Your task to perform on an android device: Play the new Demi Lovato video on YouTube Image 0: 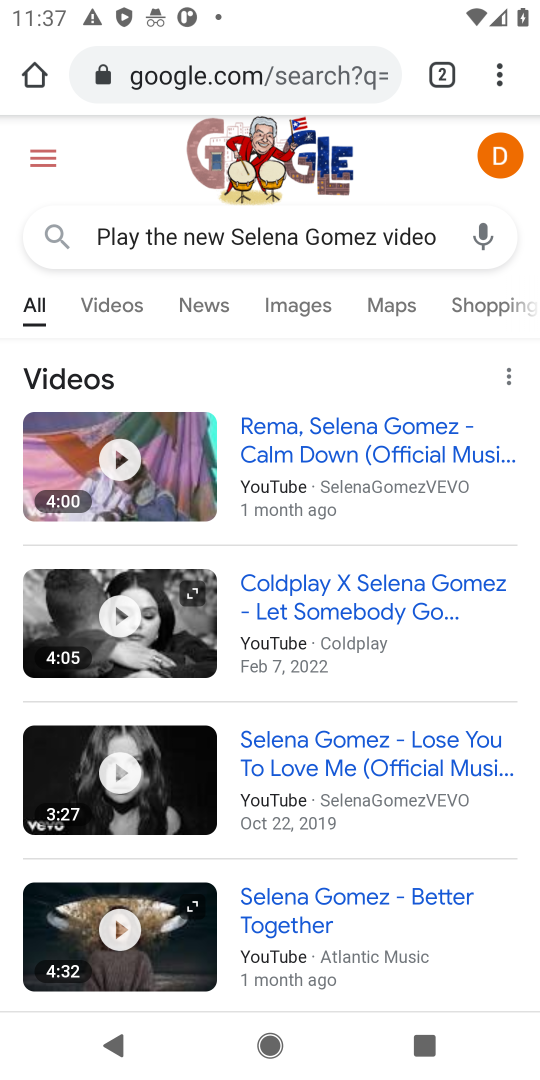
Step 0: press home button
Your task to perform on an android device: Play the new Demi Lovato video on YouTube Image 1: 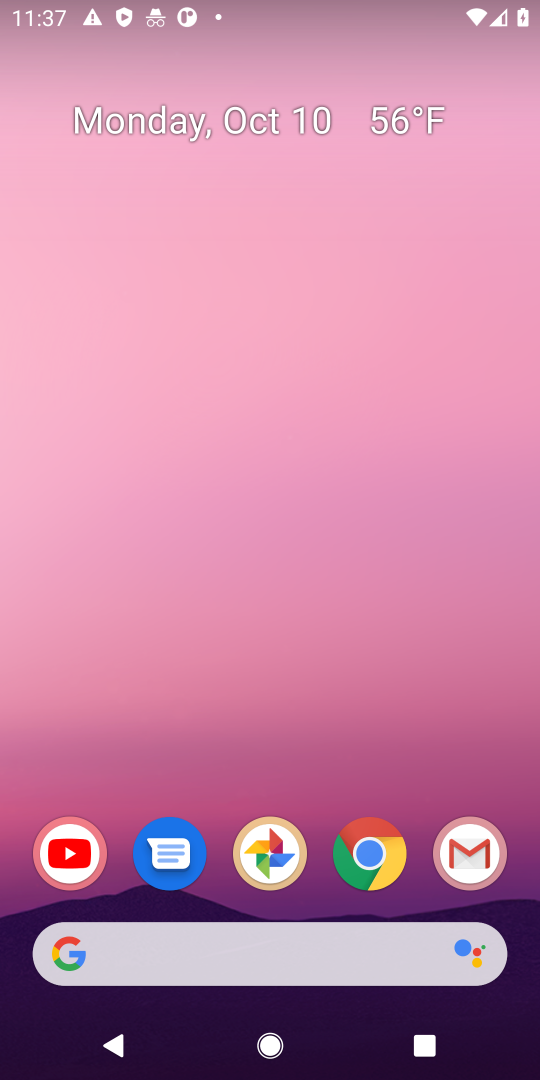
Step 1: click (84, 836)
Your task to perform on an android device: Play the new Demi Lovato video on YouTube Image 2: 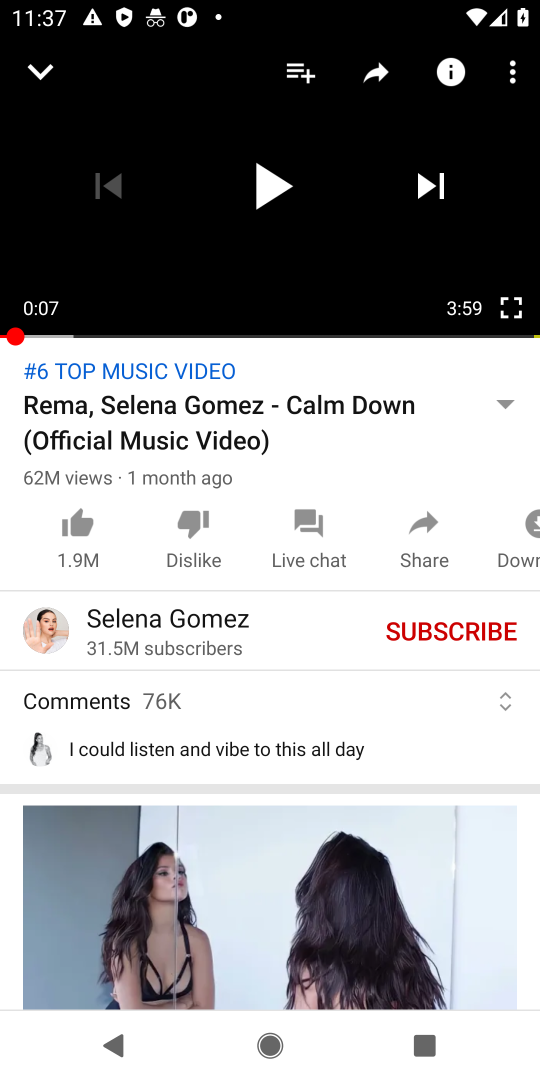
Step 2: drag from (260, 130) to (245, 1054)
Your task to perform on an android device: Play the new Demi Lovato video on YouTube Image 3: 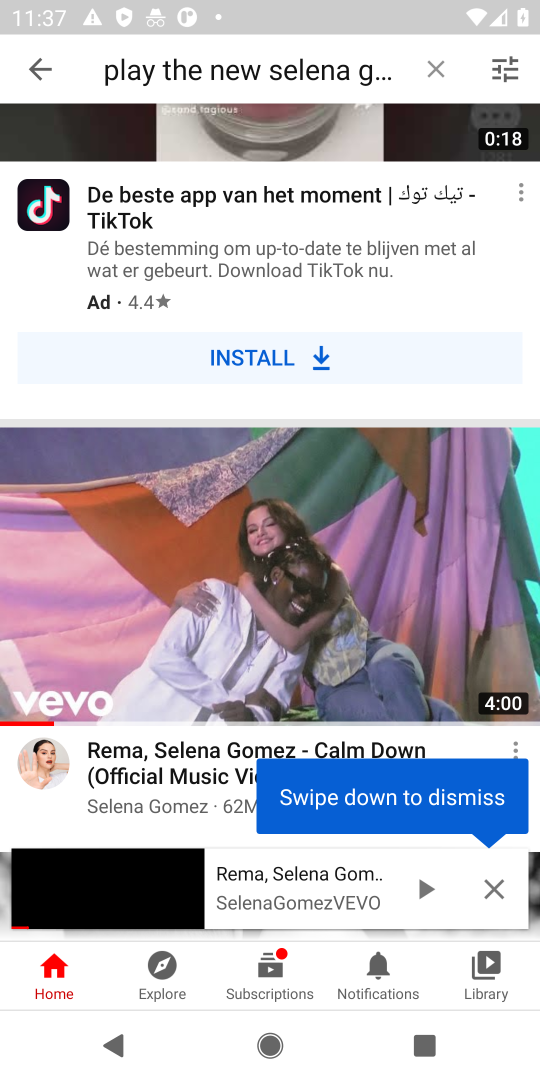
Step 3: click (423, 62)
Your task to perform on an android device: Play the new Demi Lovato video on YouTube Image 4: 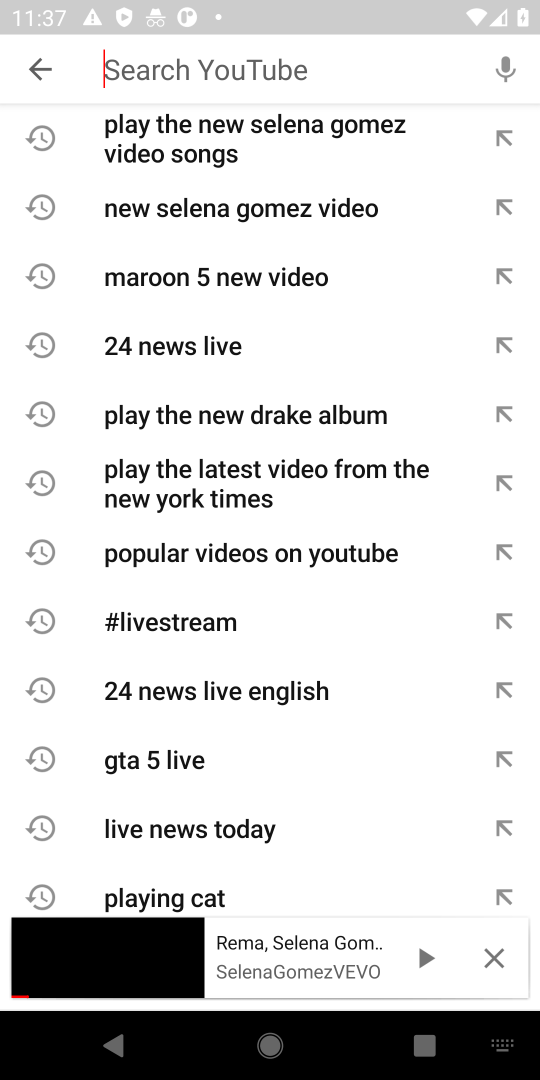
Step 4: type "Play the new Demi Lovato video"
Your task to perform on an android device: Play the new Demi Lovato video on YouTube Image 5: 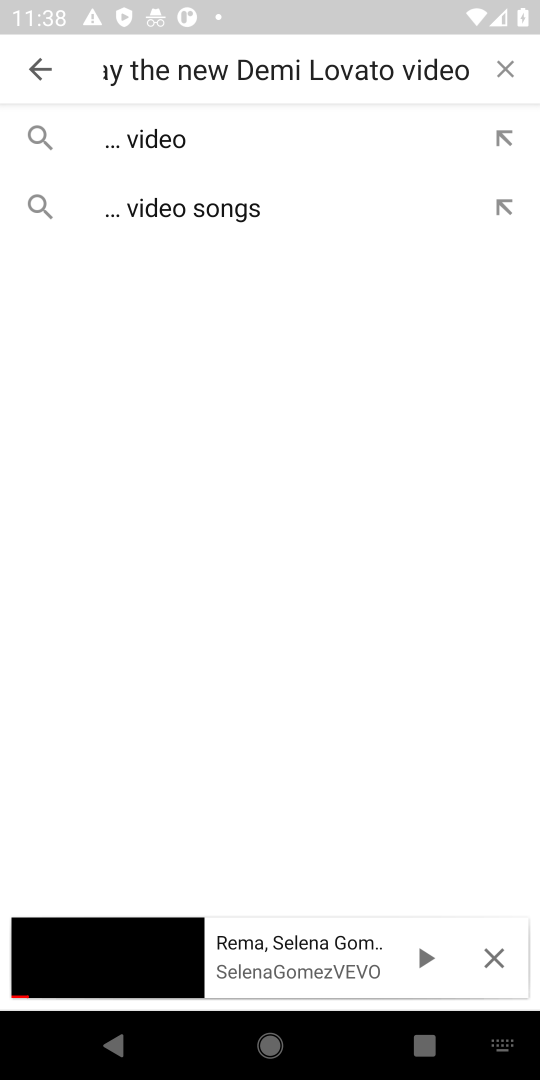
Step 5: click (149, 144)
Your task to perform on an android device: Play the new Demi Lovato video on YouTube Image 6: 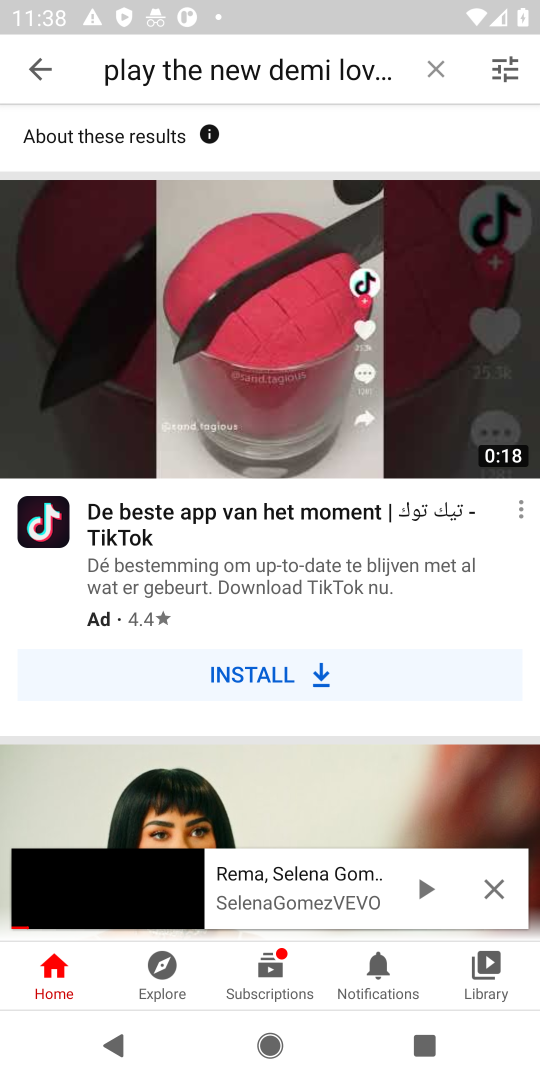
Step 6: drag from (275, 707) to (335, 247)
Your task to perform on an android device: Play the new Demi Lovato video on YouTube Image 7: 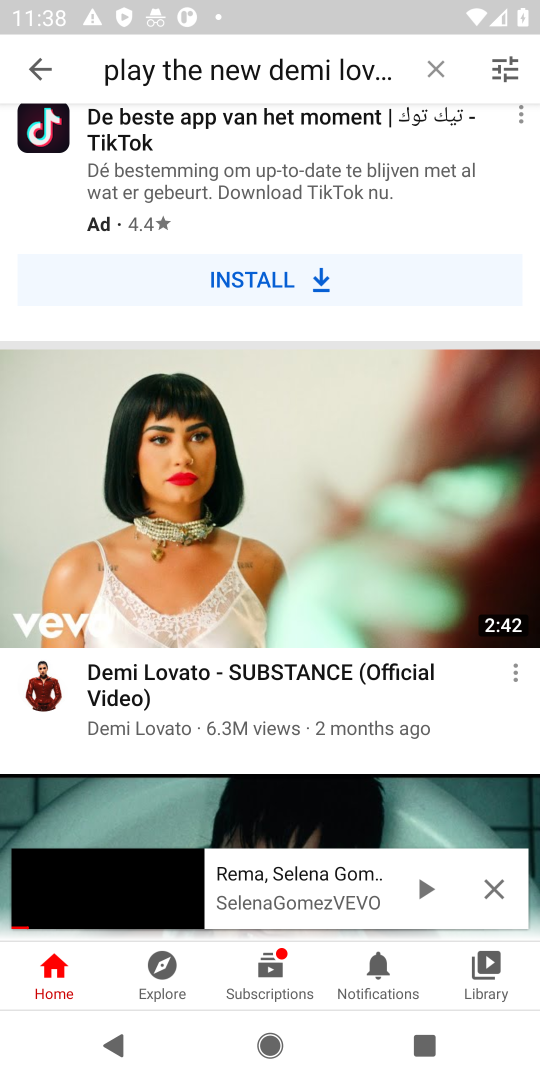
Step 7: click (206, 529)
Your task to perform on an android device: Play the new Demi Lovato video on YouTube Image 8: 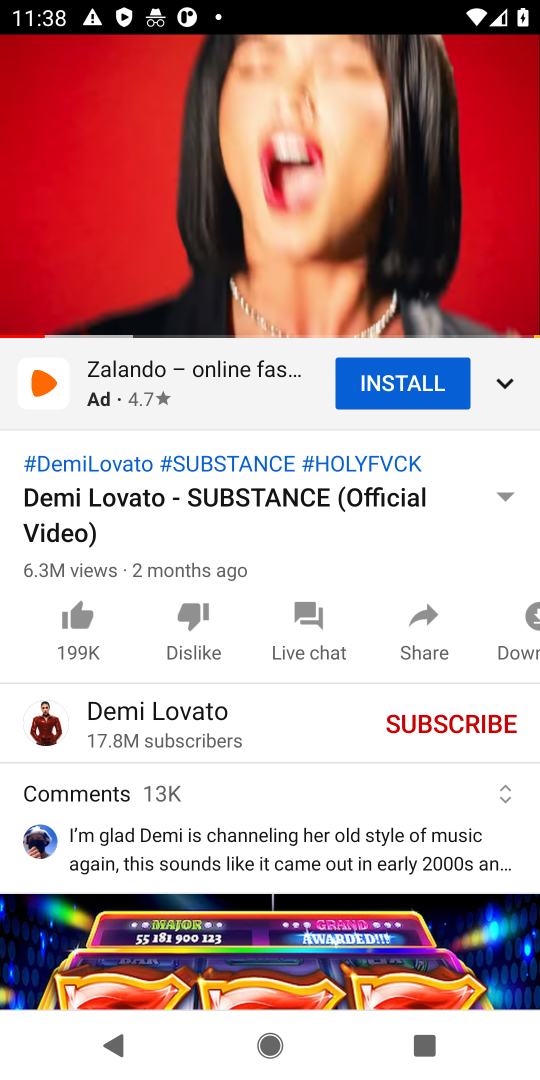
Step 8: task complete